Your task to perform on an android device: Open CNN.com Image 0: 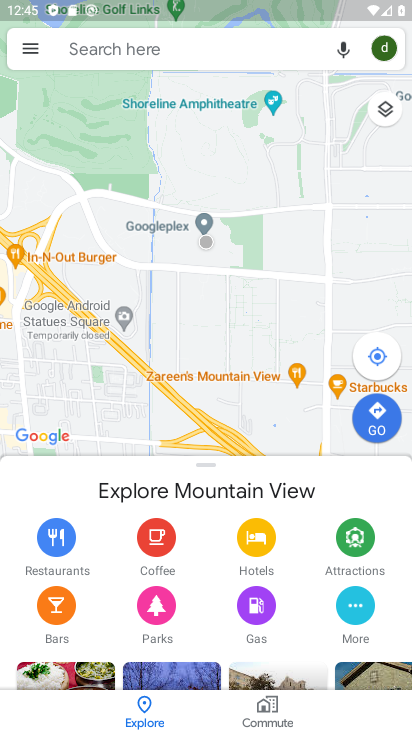
Step 0: press home button
Your task to perform on an android device: Open CNN.com Image 1: 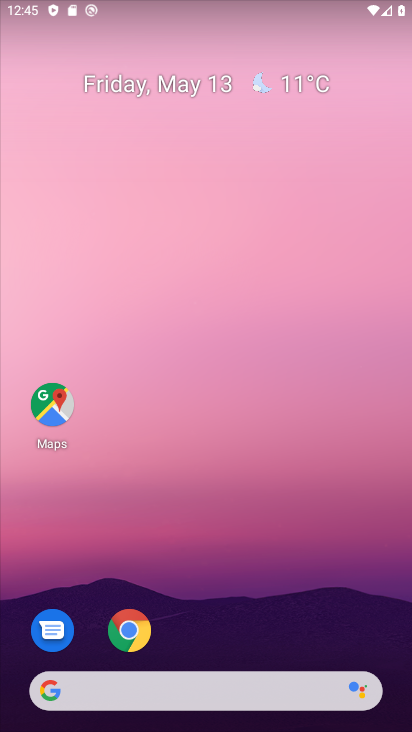
Step 1: drag from (232, 590) to (190, 239)
Your task to perform on an android device: Open CNN.com Image 2: 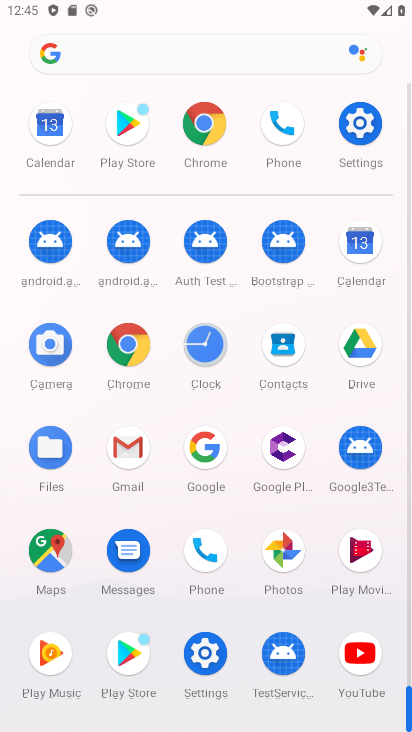
Step 2: click (137, 352)
Your task to perform on an android device: Open CNN.com Image 3: 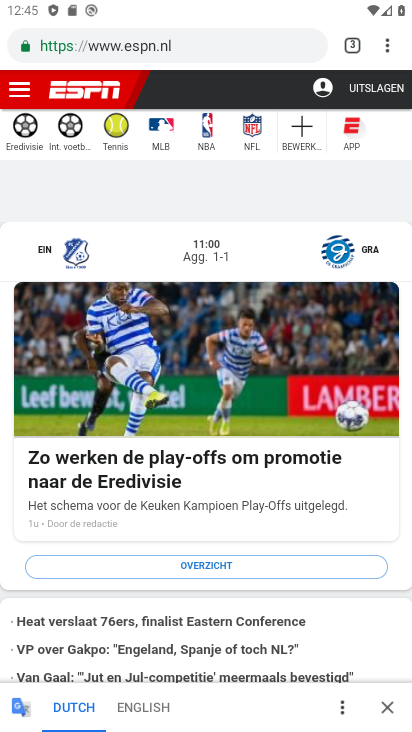
Step 3: click (354, 48)
Your task to perform on an android device: Open CNN.com Image 4: 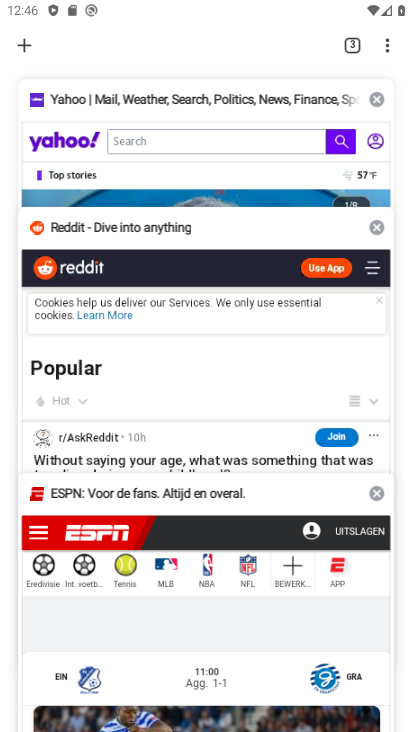
Step 4: click (26, 45)
Your task to perform on an android device: Open CNN.com Image 5: 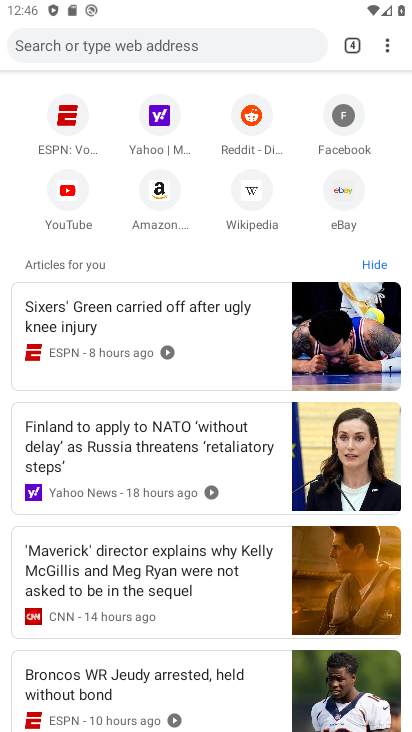
Step 5: click (161, 49)
Your task to perform on an android device: Open CNN.com Image 6: 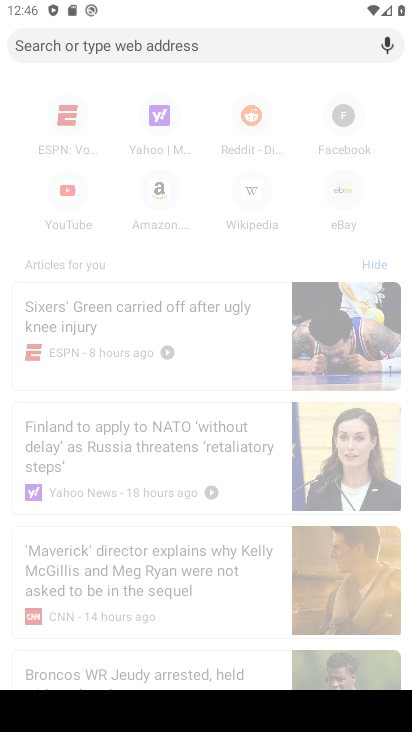
Step 6: type "cnn.com"
Your task to perform on an android device: Open CNN.com Image 7: 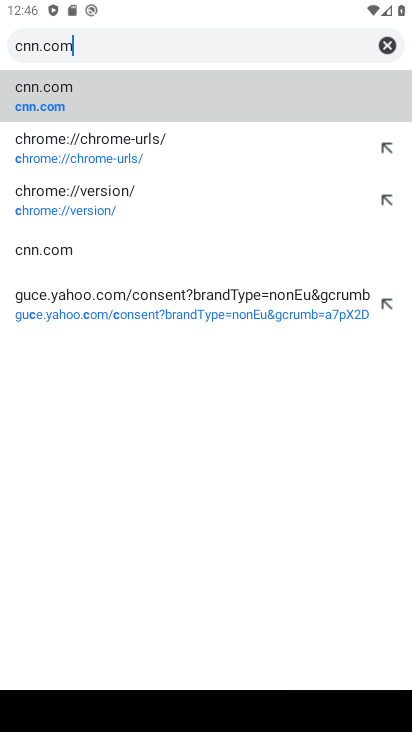
Step 7: type ""
Your task to perform on an android device: Open CNN.com Image 8: 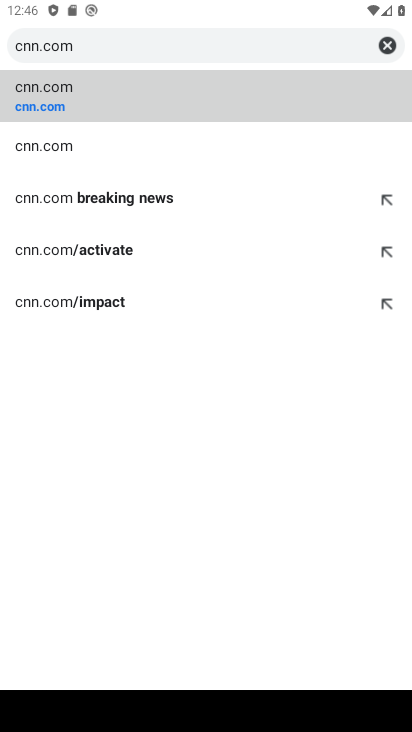
Step 8: click (78, 105)
Your task to perform on an android device: Open CNN.com Image 9: 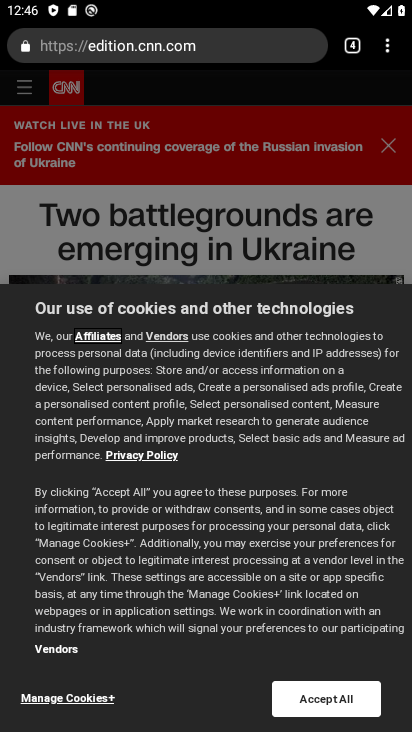
Step 9: click (377, 717)
Your task to perform on an android device: Open CNN.com Image 10: 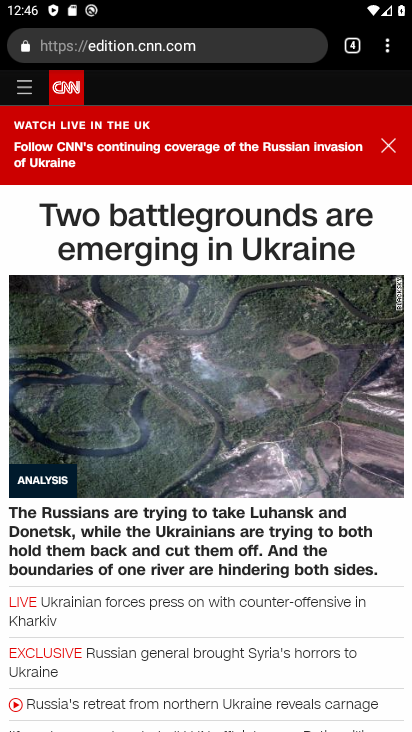
Step 10: task complete